Your task to perform on an android device: find snoozed emails in the gmail app Image 0: 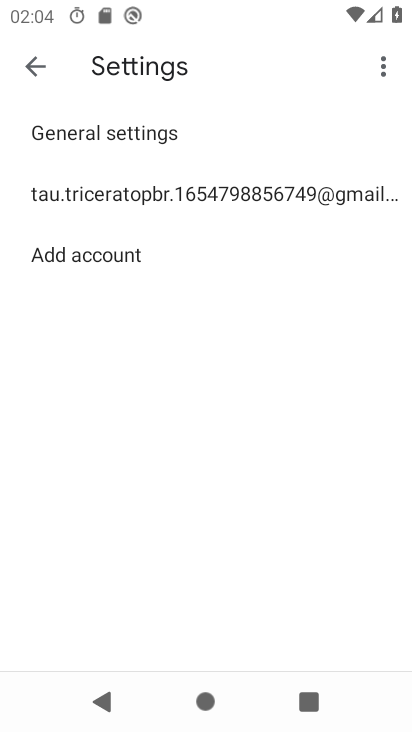
Step 0: press home button
Your task to perform on an android device: find snoozed emails in the gmail app Image 1: 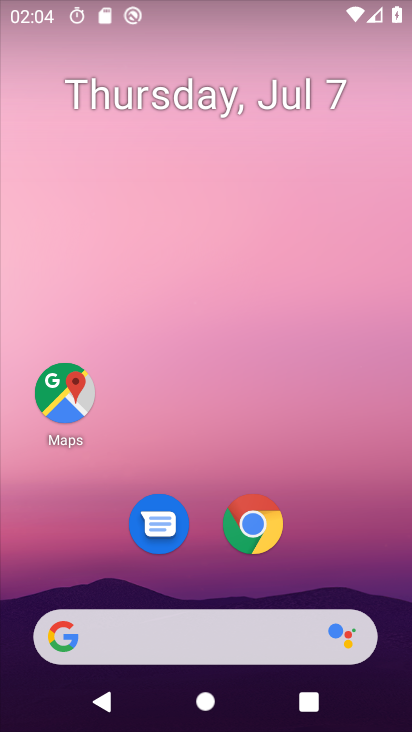
Step 1: drag from (251, 460) to (291, 43)
Your task to perform on an android device: find snoozed emails in the gmail app Image 2: 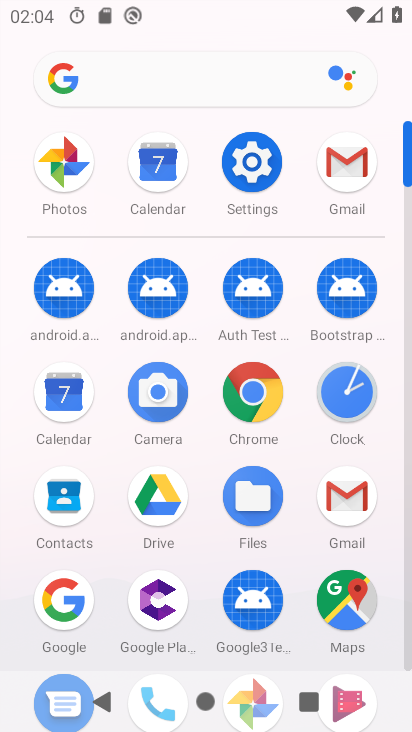
Step 2: click (251, 154)
Your task to perform on an android device: find snoozed emails in the gmail app Image 3: 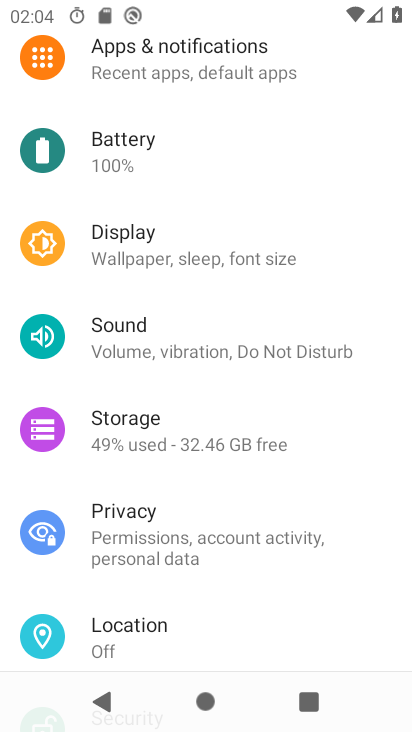
Step 3: click (192, 340)
Your task to perform on an android device: find snoozed emails in the gmail app Image 4: 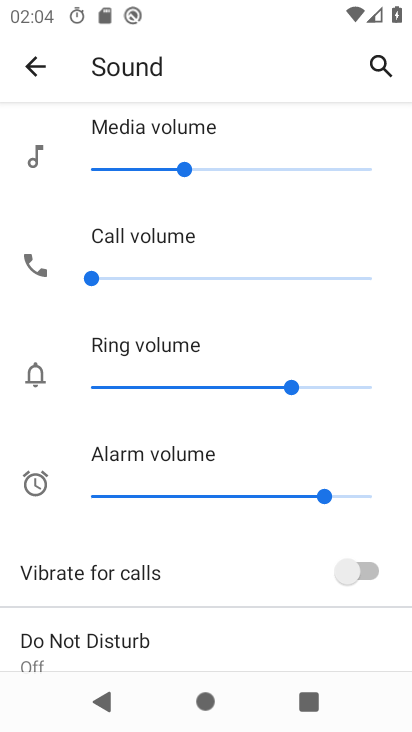
Step 4: task complete